Your task to perform on an android device: change keyboard looks Image 0: 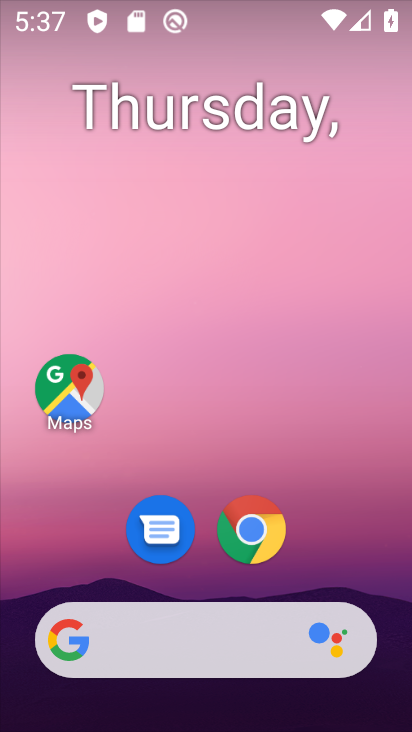
Step 0: drag from (322, 557) to (265, 30)
Your task to perform on an android device: change keyboard looks Image 1: 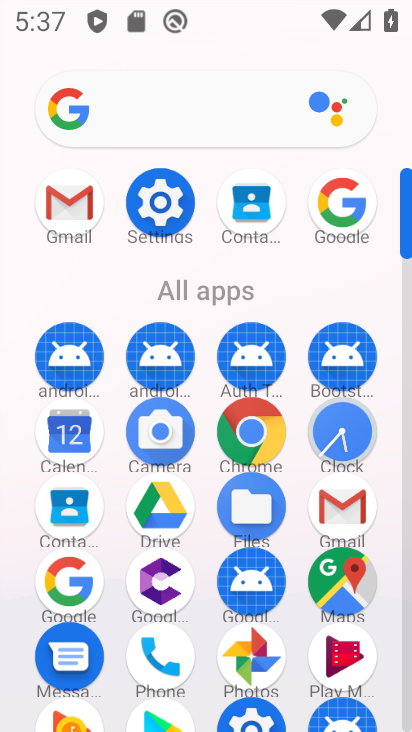
Step 1: click (162, 198)
Your task to perform on an android device: change keyboard looks Image 2: 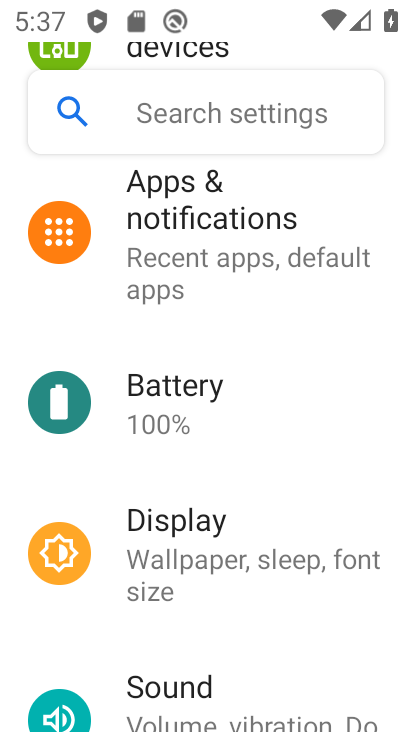
Step 2: drag from (265, 483) to (284, 349)
Your task to perform on an android device: change keyboard looks Image 3: 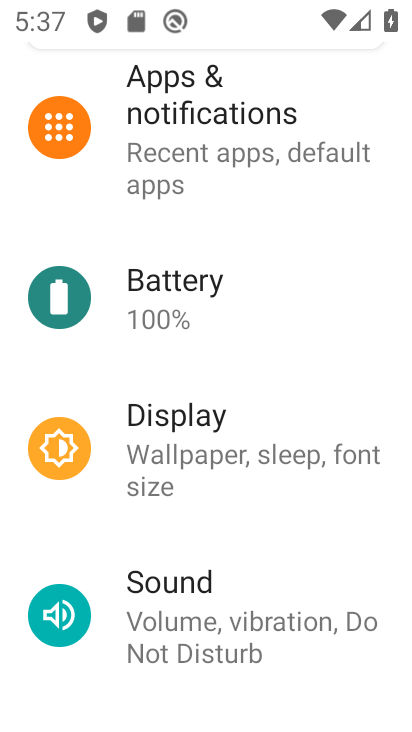
Step 3: drag from (232, 513) to (281, 385)
Your task to perform on an android device: change keyboard looks Image 4: 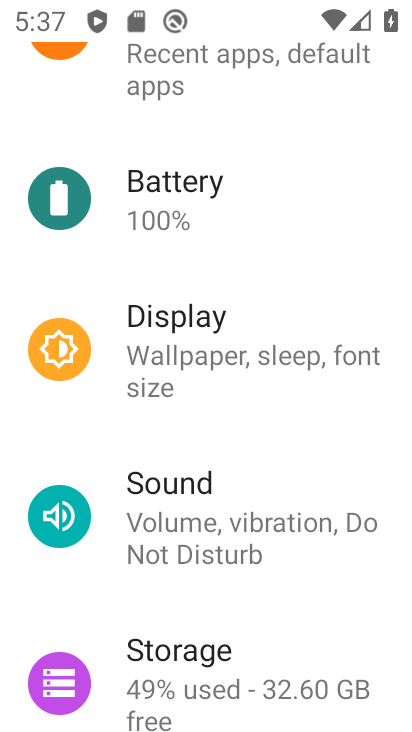
Step 4: drag from (251, 478) to (285, 323)
Your task to perform on an android device: change keyboard looks Image 5: 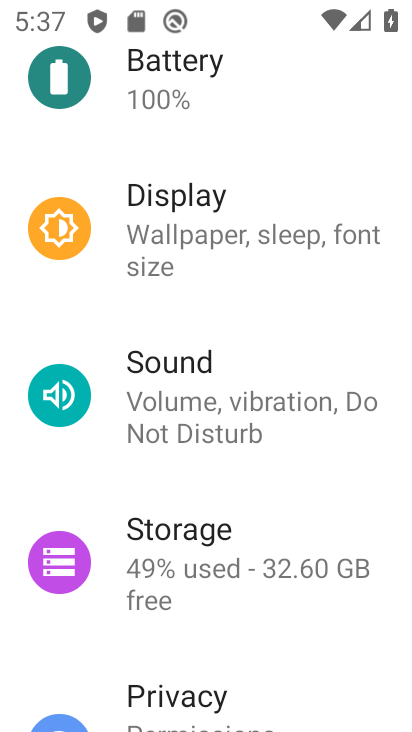
Step 5: drag from (239, 474) to (250, 373)
Your task to perform on an android device: change keyboard looks Image 6: 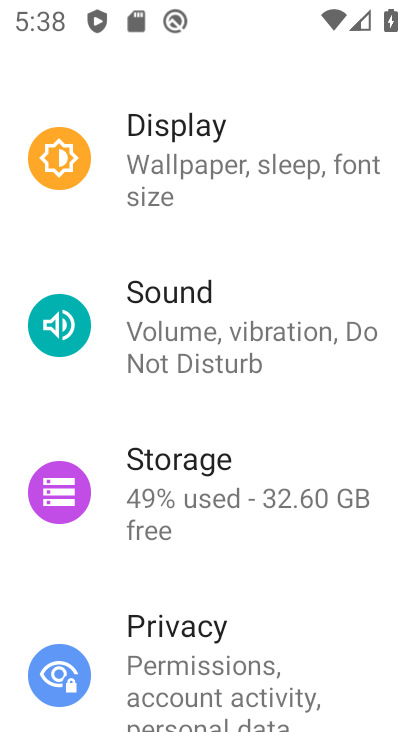
Step 6: drag from (246, 563) to (298, 438)
Your task to perform on an android device: change keyboard looks Image 7: 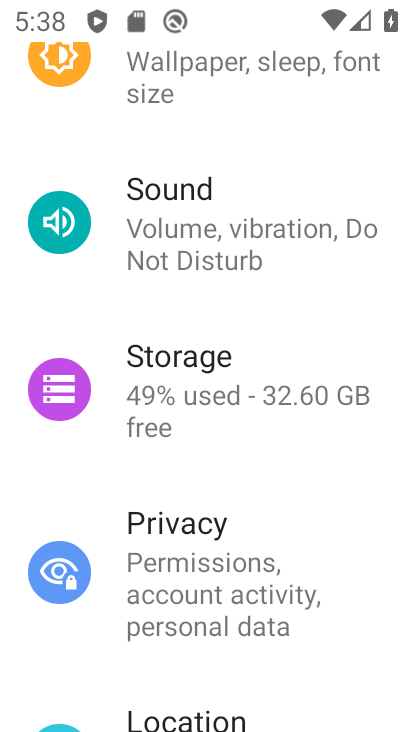
Step 7: drag from (223, 684) to (302, 509)
Your task to perform on an android device: change keyboard looks Image 8: 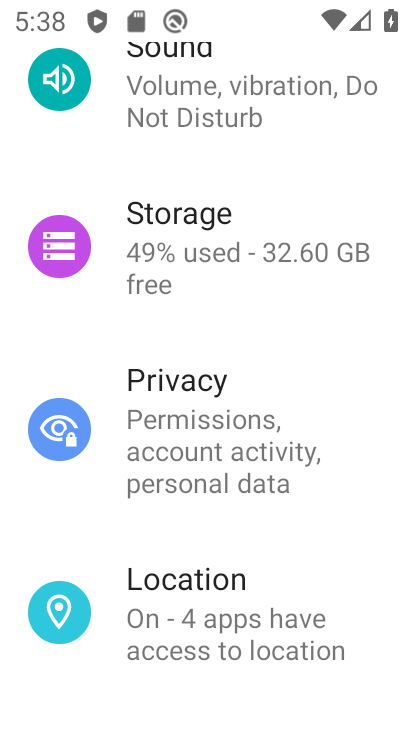
Step 8: drag from (275, 540) to (332, 350)
Your task to perform on an android device: change keyboard looks Image 9: 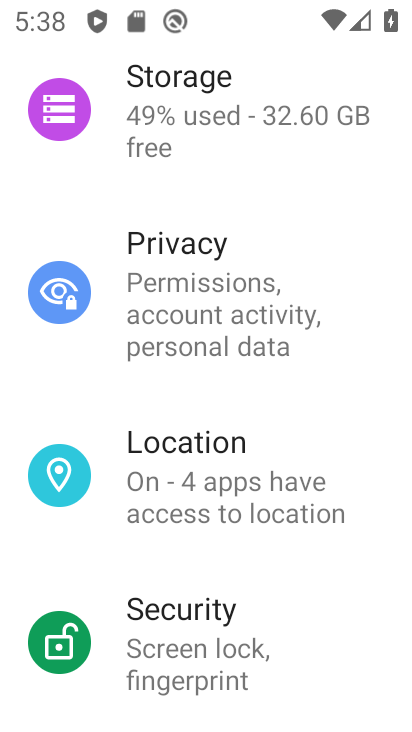
Step 9: drag from (224, 540) to (300, 362)
Your task to perform on an android device: change keyboard looks Image 10: 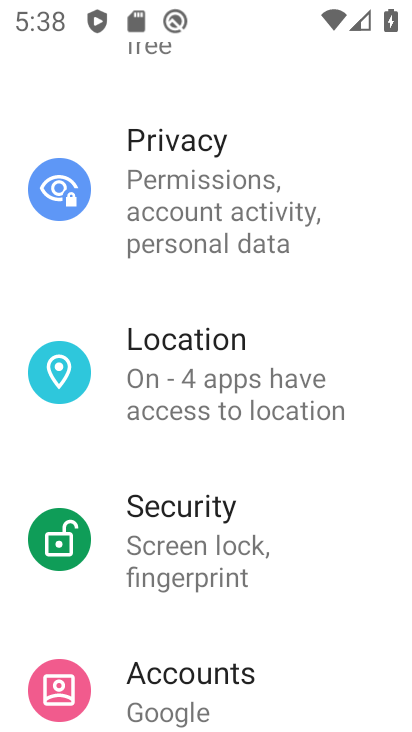
Step 10: drag from (240, 460) to (300, 271)
Your task to perform on an android device: change keyboard looks Image 11: 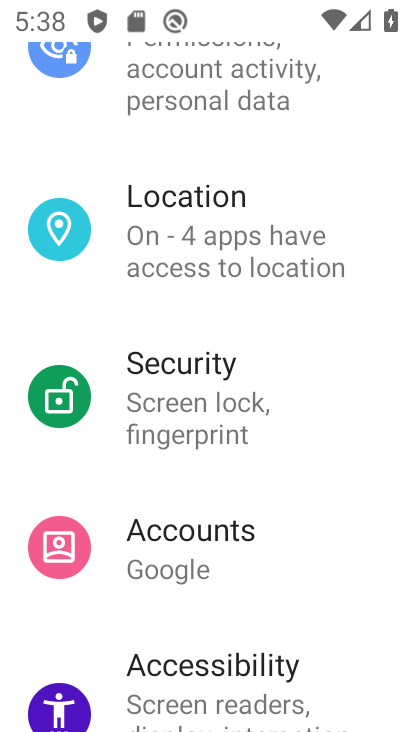
Step 11: drag from (221, 481) to (282, 377)
Your task to perform on an android device: change keyboard looks Image 12: 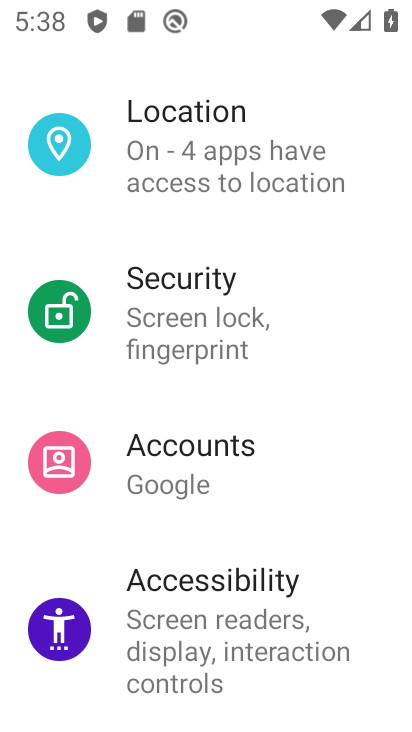
Step 12: drag from (204, 534) to (292, 363)
Your task to perform on an android device: change keyboard looks Image 13: 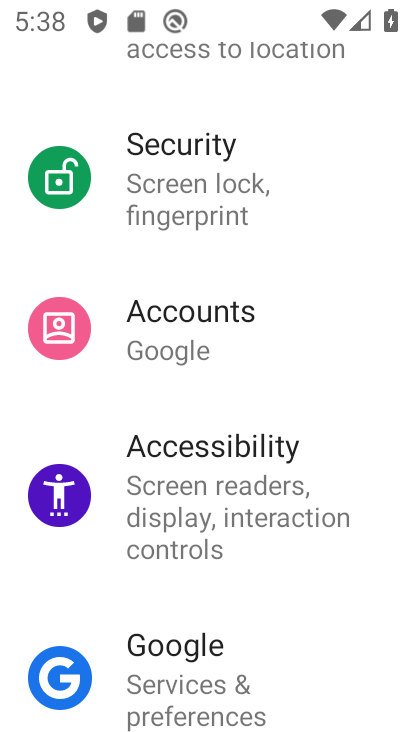
Step 13: drag from (206, 576) to (318, 388)
Your task to perform on an android device: change keyboard looks Image 14: 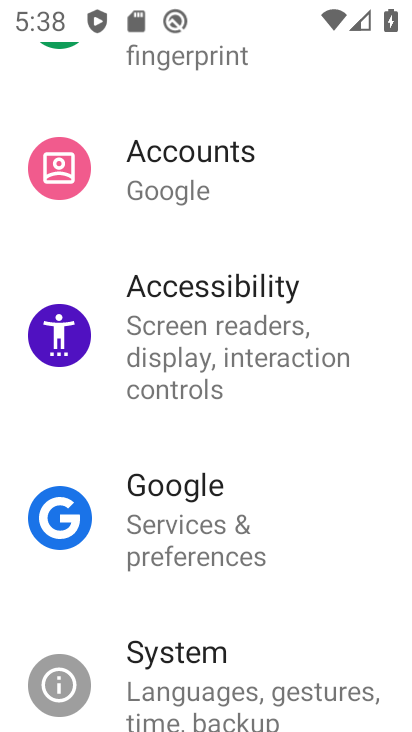
Step 14: drag from (224, 597) to (297, 493)
Your task to perform on an android device: change keyboard looks Image 15: 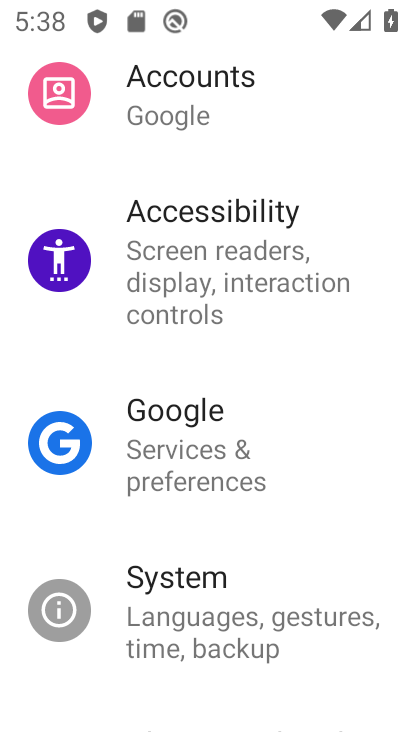
Step 15: drag from (198, 673) to (285, 470)
Your task to perform on an android device: change keyboard looks Image 16: 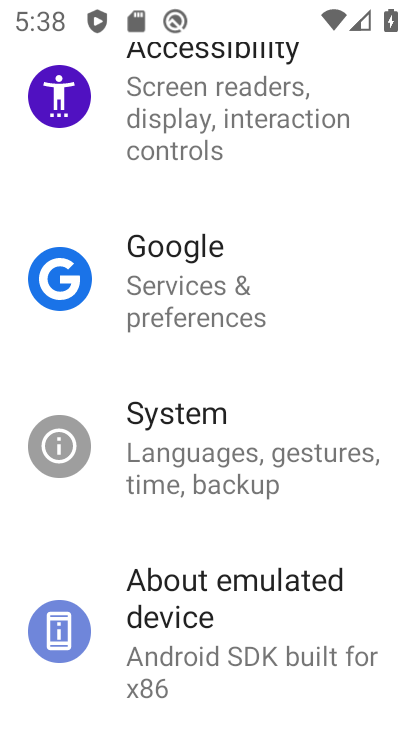
Step 16: click (182, 413)
Your task to perform on an android device: change keyboard looks Image 17: 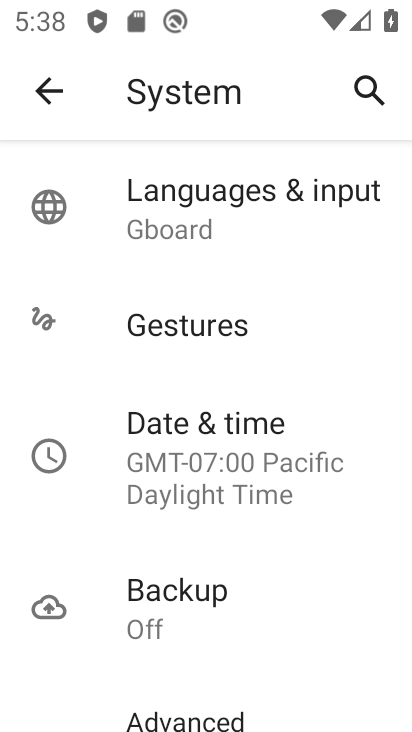
Step 17: click (231, 195)
Your task to perform on an android device: change keyboard looks Image 18: 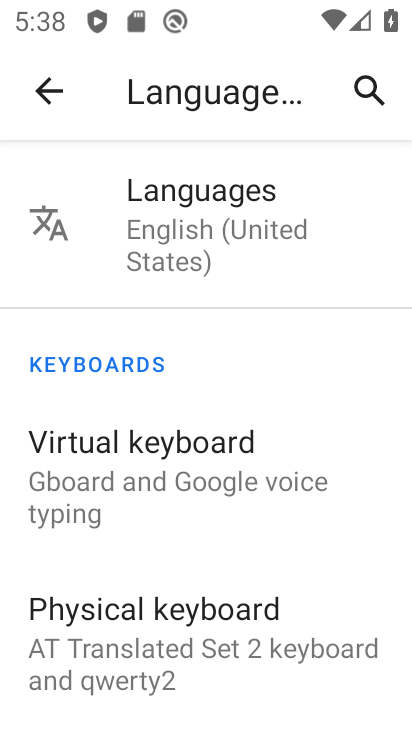
Step 18: click (183, 443)
Your task to perform on an android device: change keyboard looks Image 19: 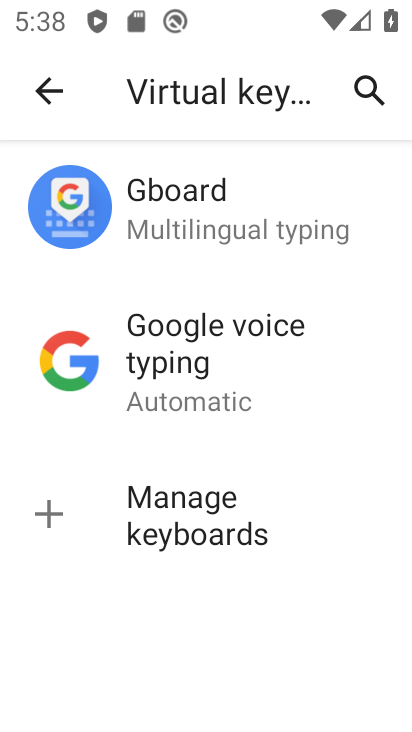
Step 19: click (179, 196)
Your task to perform on an android device: change keyboard looks Image 20: 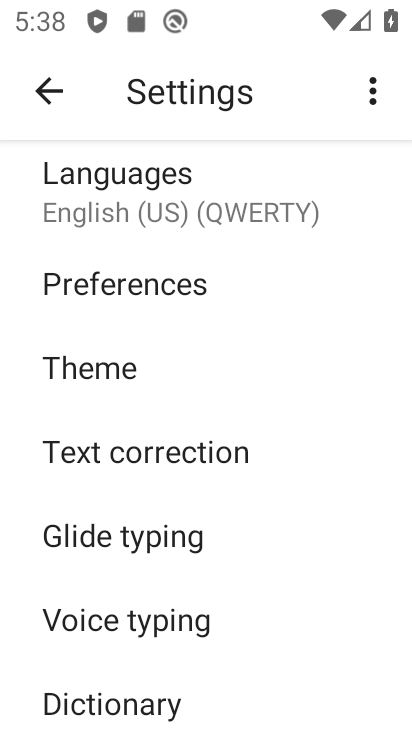
Step 20: click (134, 371)
Your task to perform on an android device: change keyboard looks Image 21: 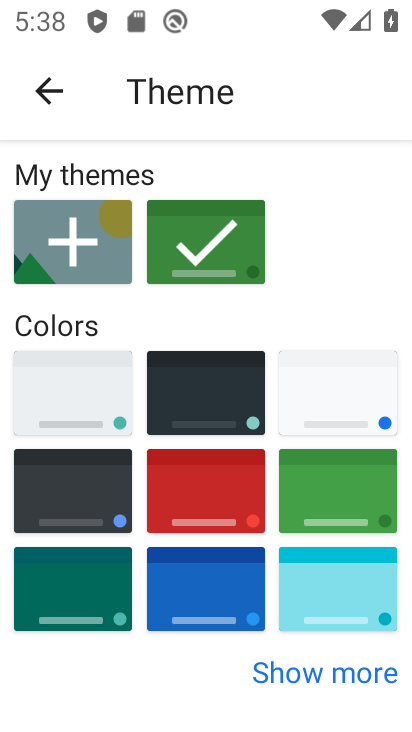
Step 21: click (219, 597)
Your task to perform on an android device: change keyboard looks Image 22: 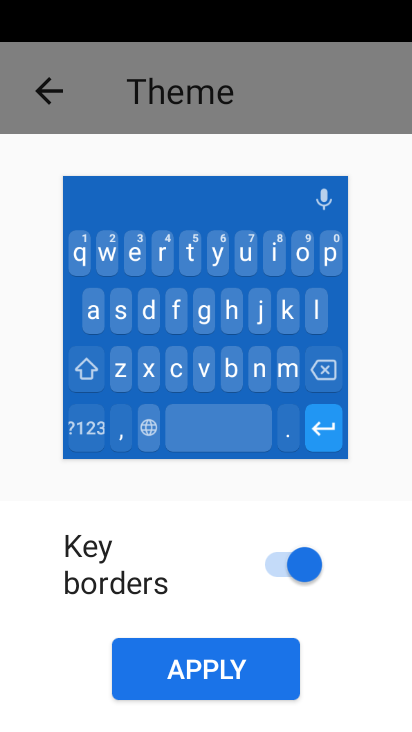
Step 22: click (249, 668)
Your task to perform on an android device: change keyboard looks Image 23: 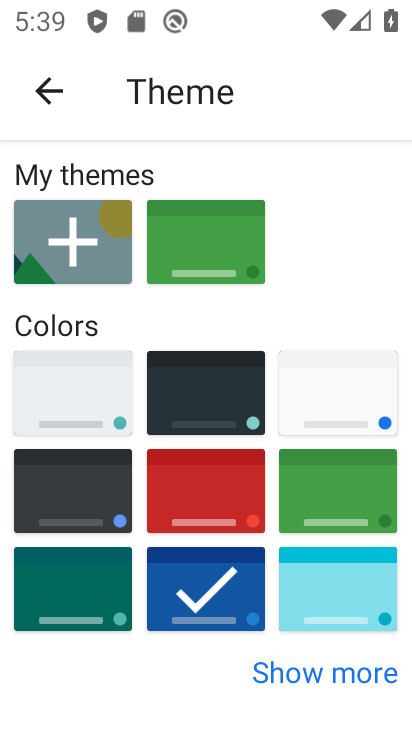
Step 23: task complete